Your task to perform on an android device: Search for good Thai restaurants Image 0: 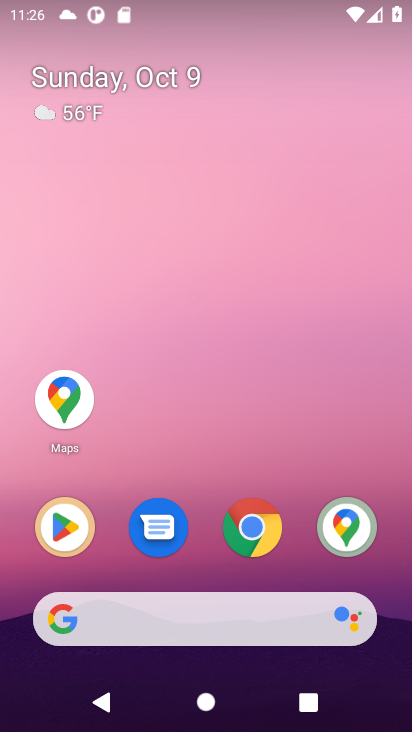
Step 0: click (242, 547)
Your task to perform on an android device: Search for good Thai restaurants Image 1: 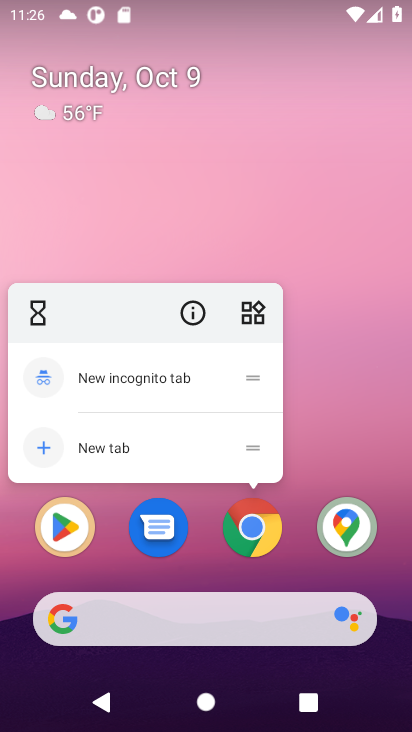
Step 1: click (247, 542)
Your task to perform on an android device: Search for good Thai restaurants Image 2: 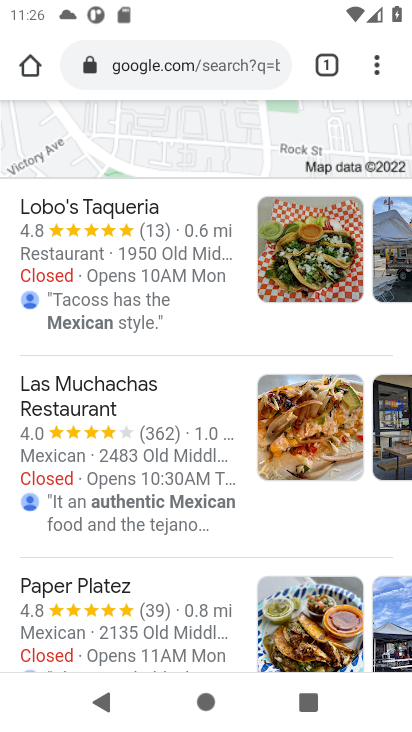
Step 2: click (192, 61)
Your task to perform on an android device: Search for good Thai restaurants Image 3: 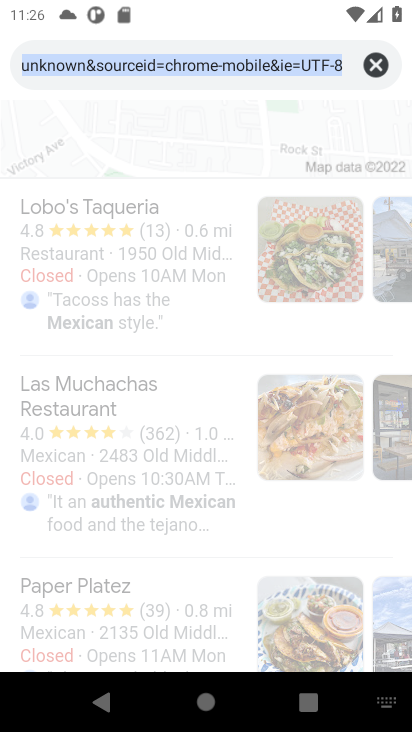
Step 3: click (380, 61)
Your task to perform on an android device: Search for good Thai restaurants Image 4: 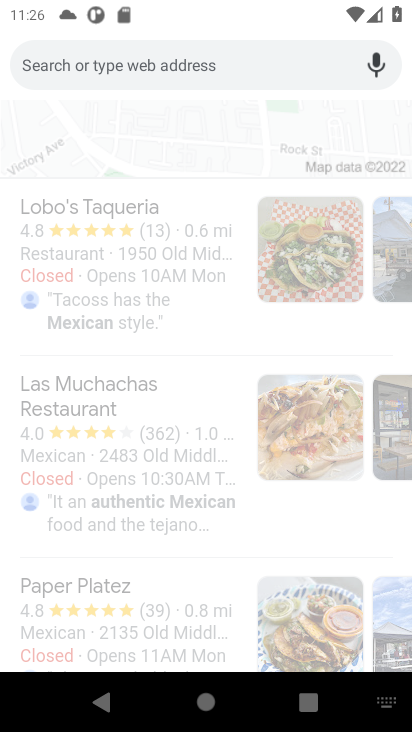
Step 4: type "good thai restaurants"
Your task to perform on an android device: Search for good Thai restaurants Image 5: 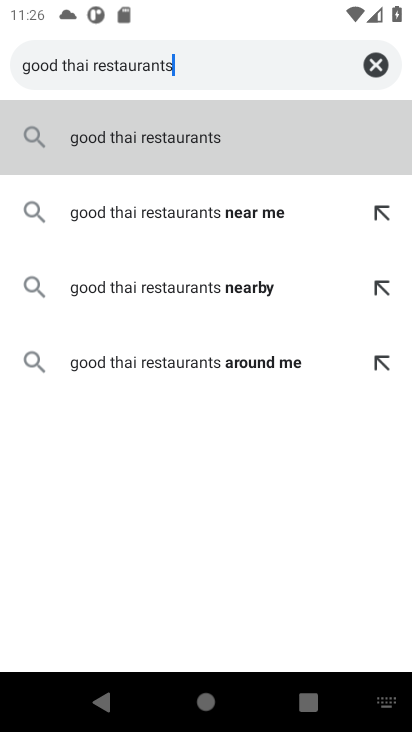
Step 5: click (188, 148)
Your task to perform on an android device: Search for good Thai restaurants Image 6: 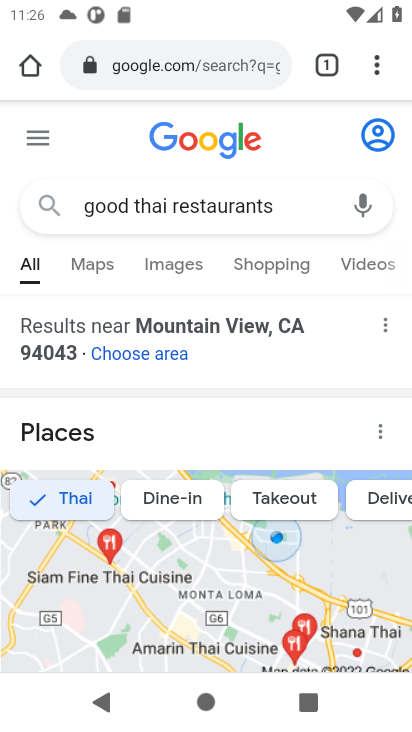
Step 6: task complete